Your task to perform on an android device: set the stopwatch Image 0: 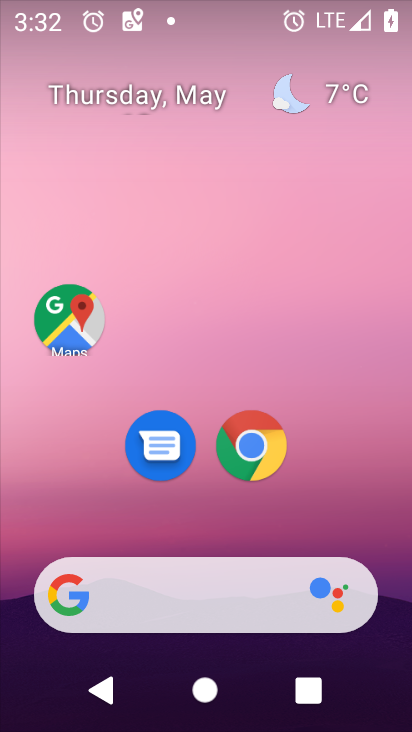
Step 0: drag from (369, 540) to (382, 15)
Your task to perform on an android device: set the stopwatch Image 1: 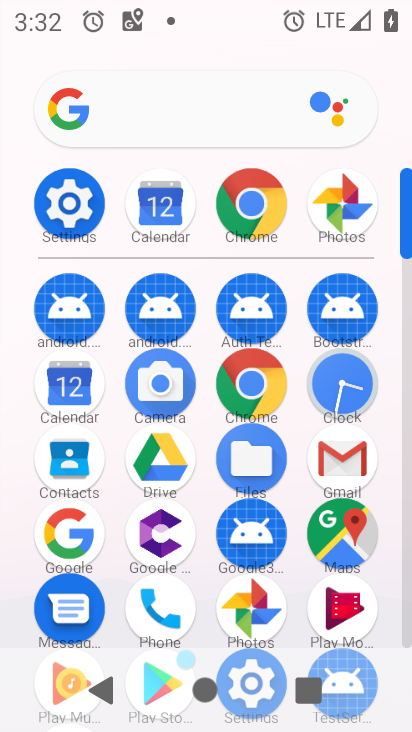
Step 1: click (334, 395)
Your task to perform on an android device: set the stopwatch Image 2: 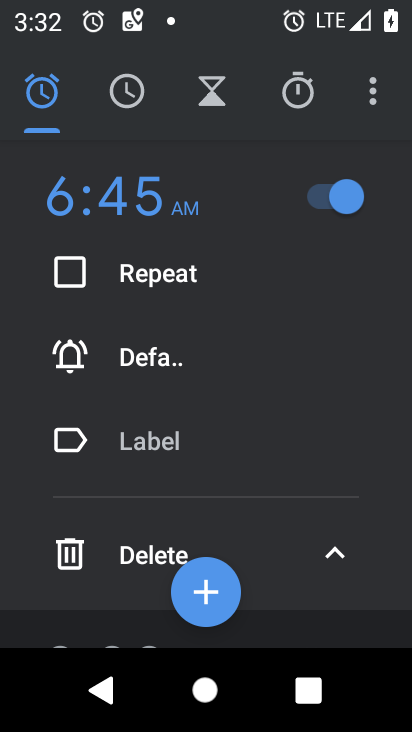
Step 2: click (305, 101)
Your task to perform on an android device: set the stopwatch Image 3: 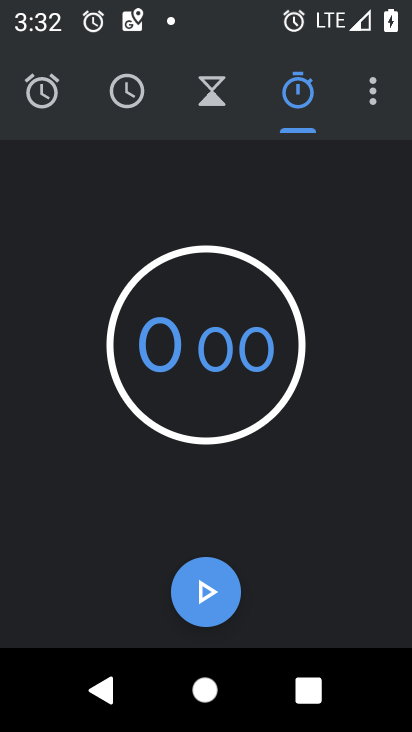
Step 3: click (212, 608)
Your task to perform on an android device: set the stopwatch Image 4: 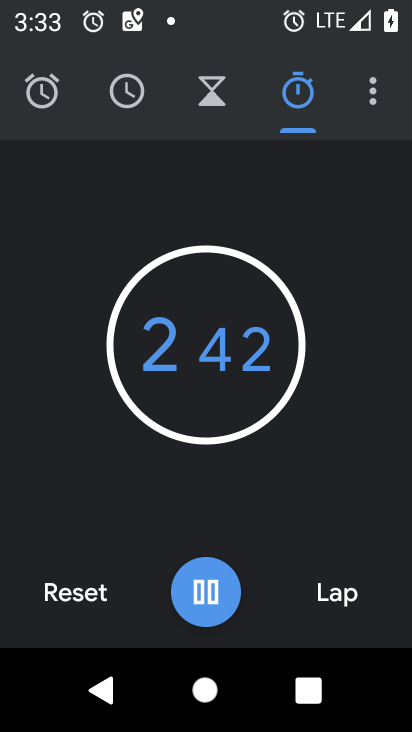
Step 4: click (203, 604)
Your task to perform on an android device: set the stopwatch Image 5: 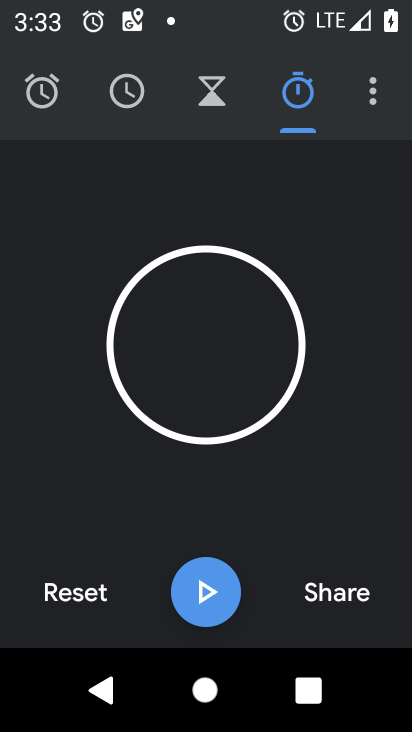
Step 5: task complete